Your task to perform on an android device: turn off improve location accuracy Image 0: 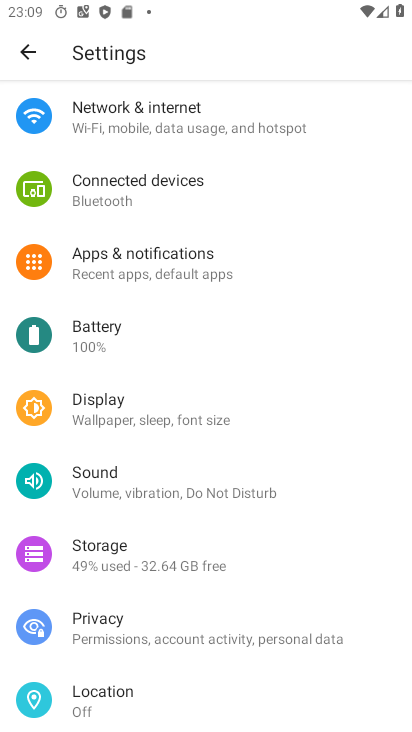
Step 0: press home button
Your task to perform on an android device: turn off improve location accuracy Image 1: 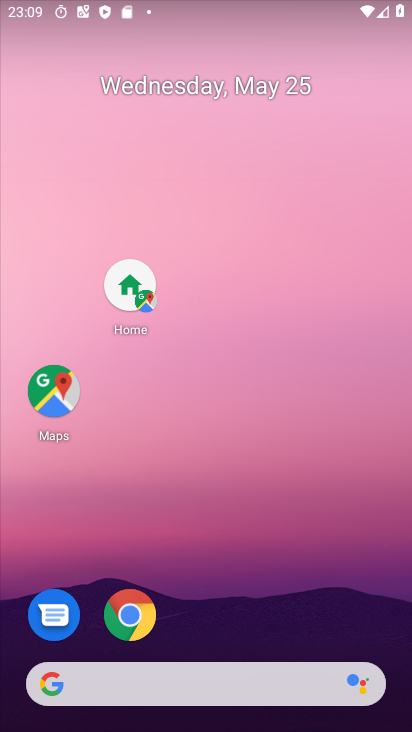
Step 1: drag from (231, 562) to (234, 245)
Your task to perform on an android device: turn off improve location accuracy Image 2: 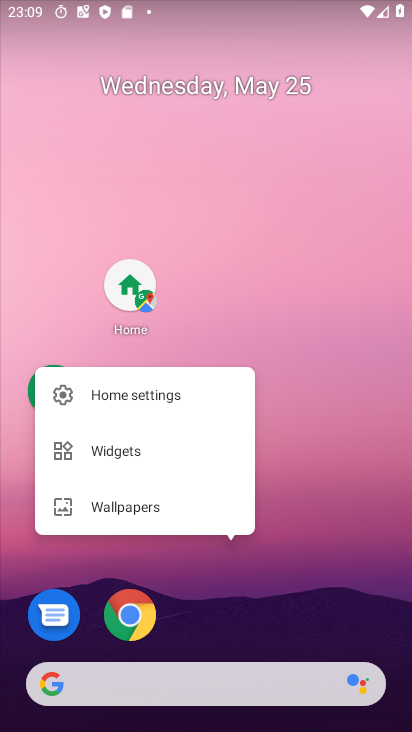
Step 2: drag from (336, 553) to (249, 107)
Your task to perform on an android device: turn off improve location accuracy Image 3: 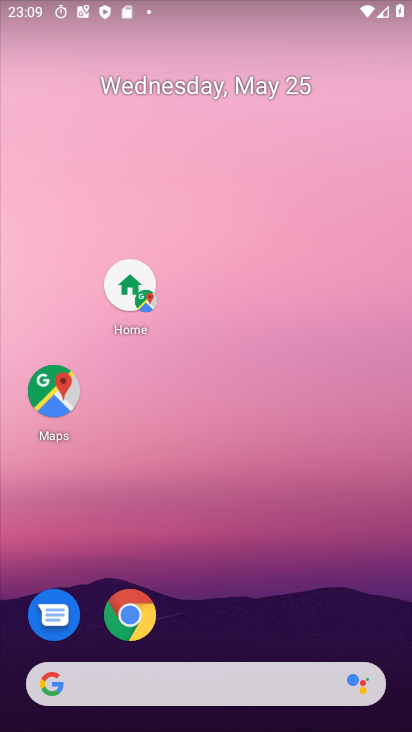
Step 3: drag from (246, 568) to (238, 169)
Your task to perform on an android device: turn off improve location accuracy Image 4: 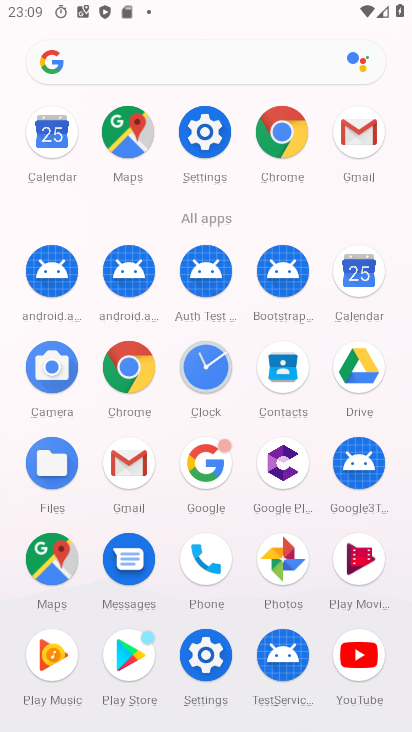
Step 4: click (204, 123)
Your task to perform on an android device: turn off improve location accuracy Image 5: 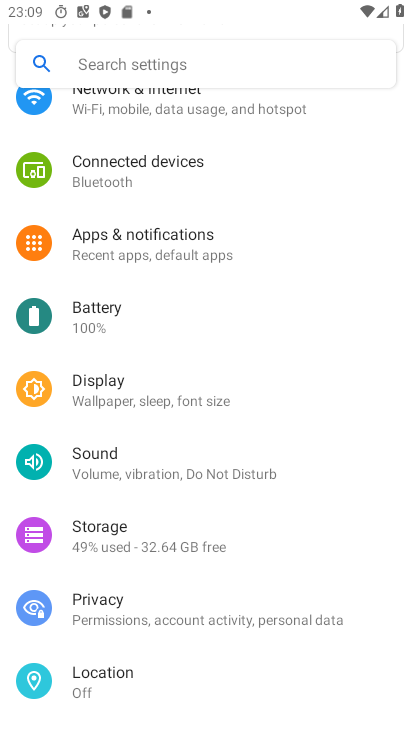
Step 5: click (102, 672)
Your task to perform on an android device: turn off improve location accuracy Image 6: 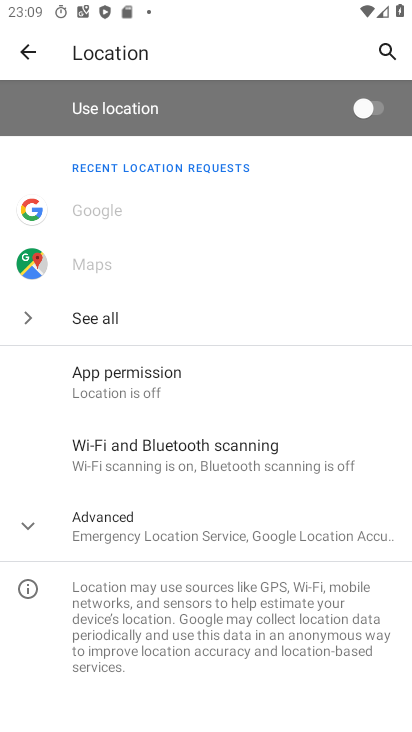
Step 6: drag from (318, 406) to (224, 313)
Your task to perform on an android device: turn off improve location accuracy Image 7: 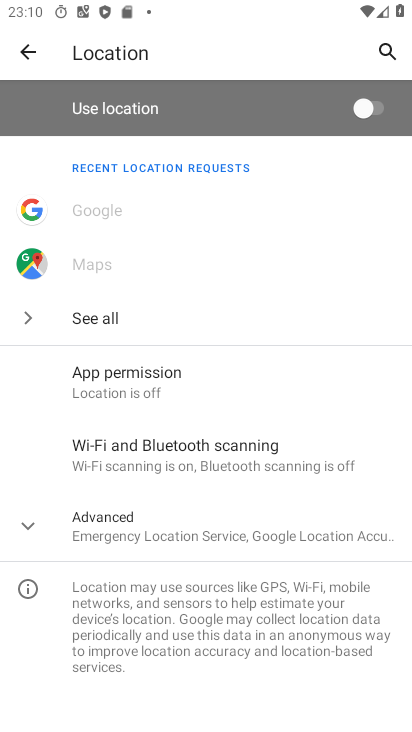
Step 7: click (367, 114)
Your task to perform on an android device: turn off improve location accuracy Image 8: 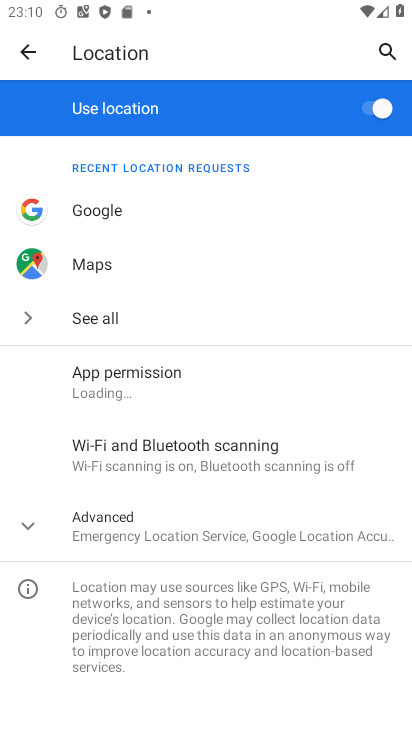
Step 8: click (33, 534)
Your task to perform on an android device: turn off improve location accuracy Image 9: 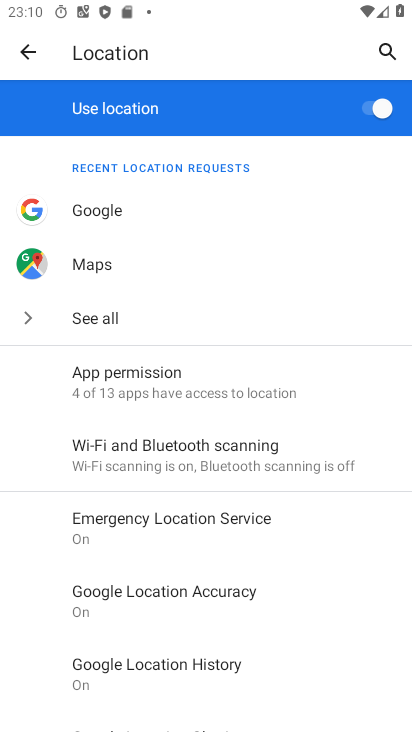
Step 9: click (161, 591)
Your task to perform on an android device: turn off improve location accuracy Image 10: 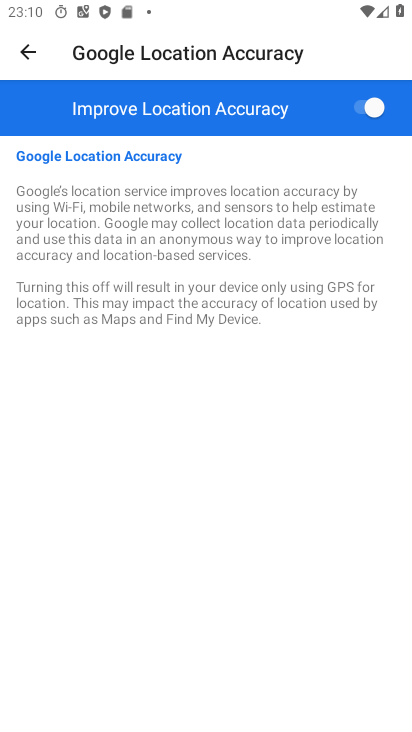
Step 10: click (356, 106)
Your task to perform on an android device: turn off improve location accuracy Image 11: 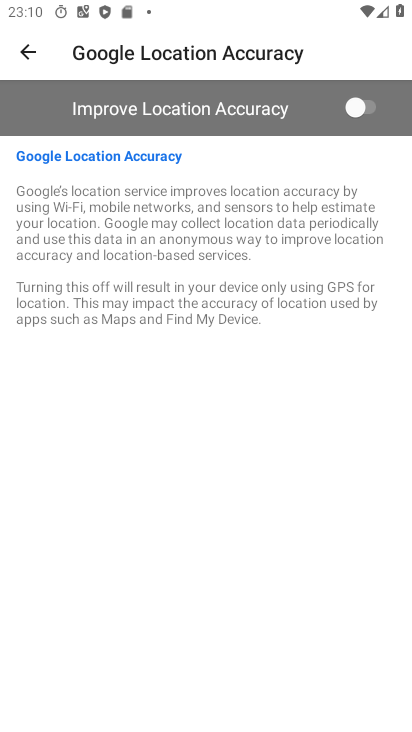
Step 11: task complete